Your task to perform on an android device: move a message to another label in the gmail app Image 0: 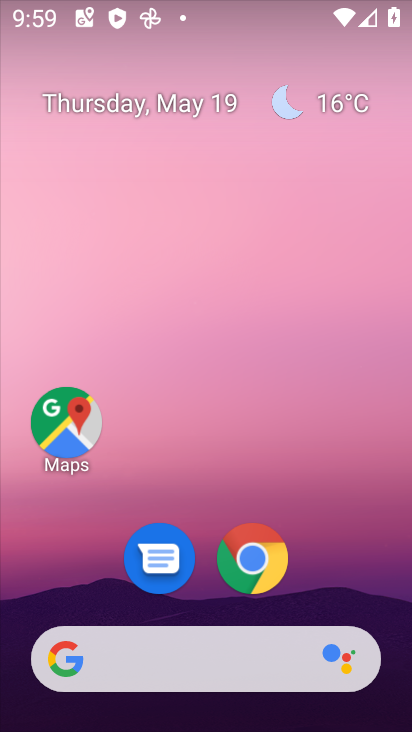
Step 0: drag from (189, 721) to (195, 137)
Your task to perform on an android device: move a message to another label in the gmail app Image 1: 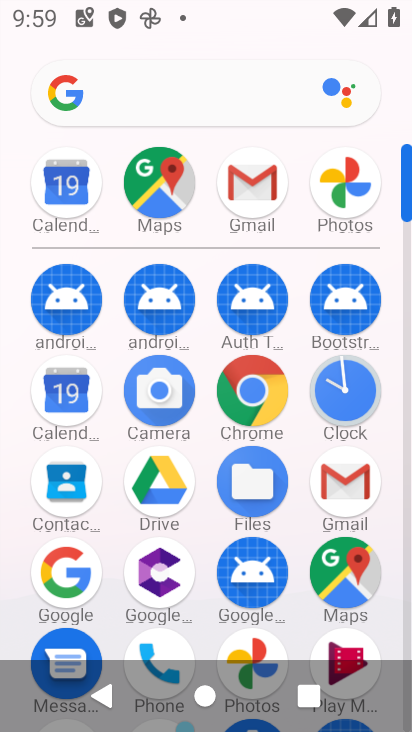
Step 1: click (356, 479)
Your task to perform on an android device: move a message to another label in the gmail app Image 2: 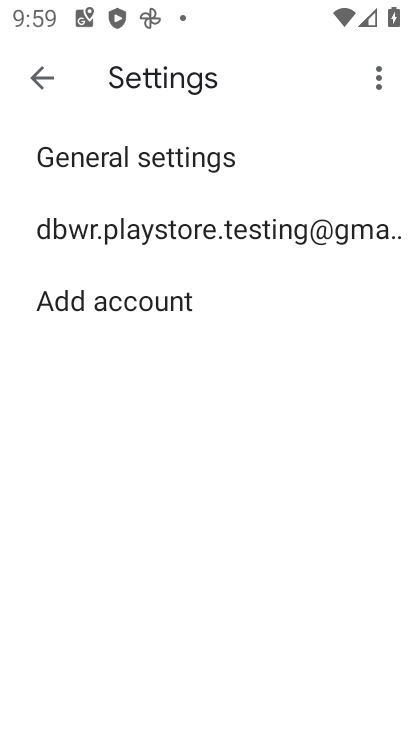
Step 2: click (39, 79)
Your task to perform on an android device: move a message to another label in the gmail app Image 3: 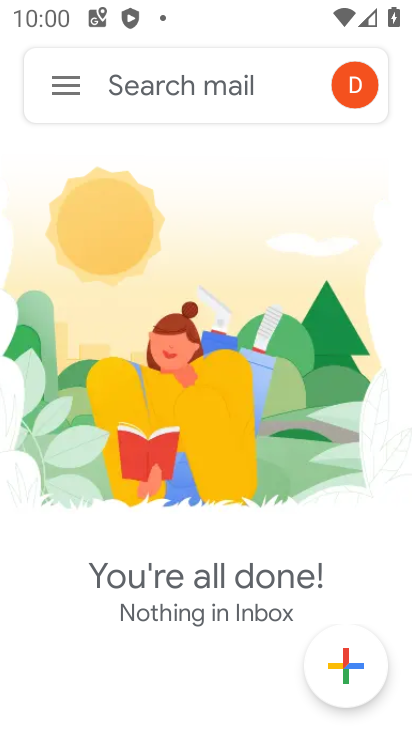
Step 3: task complete